Your task to perform on an android device: Open Google Chrome and click the shortcut for Amazon.com Image 0: 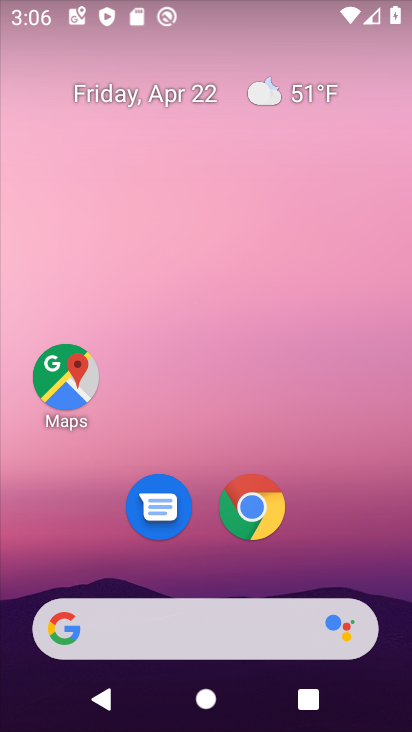
Step 0: click (246, 509)
Your task to perform on an android device: Open Google Chrome and click the shortcut for Amazon.com Image 1: 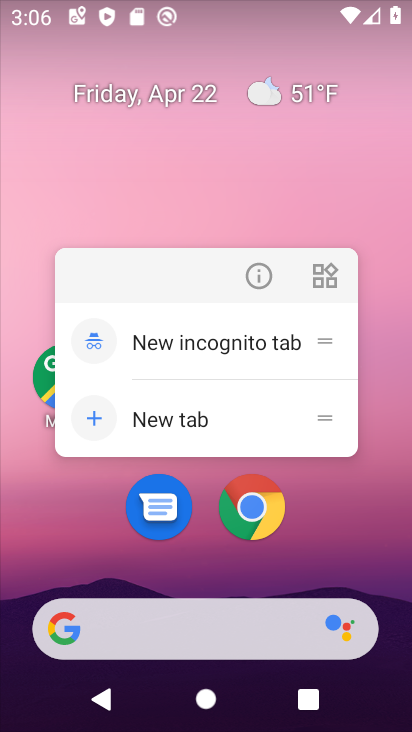
Step 1: click (258, 519)
Your task to perform on an android device: Open Google Chrome and click the shortcut for Amazon.com Image 2: 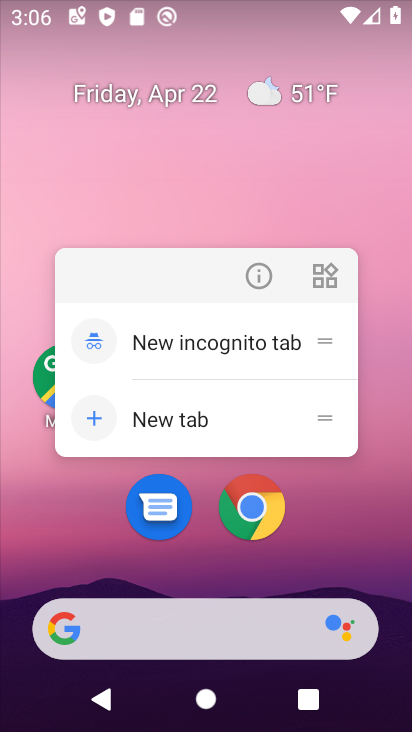
Step 2: click (260, 508)
Your task to perform on an android device: Open Google Chrome and click the shortcut for Amazon.com Image 3: 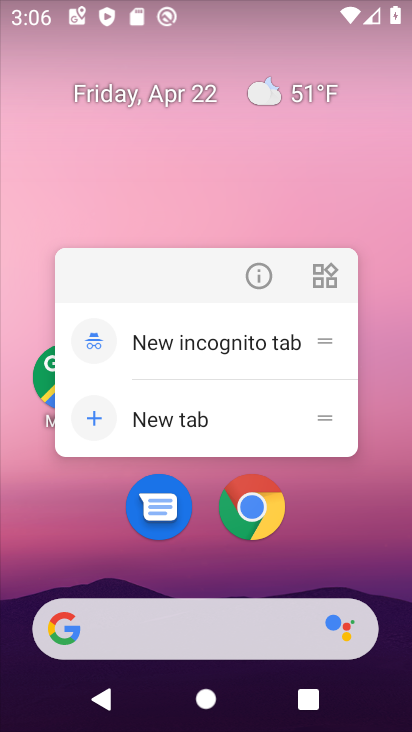
Step 3: click (252, 502)
Your task to perform on an android device: Open Google Chrome and click the shortcut for Amazon.com Image 4: 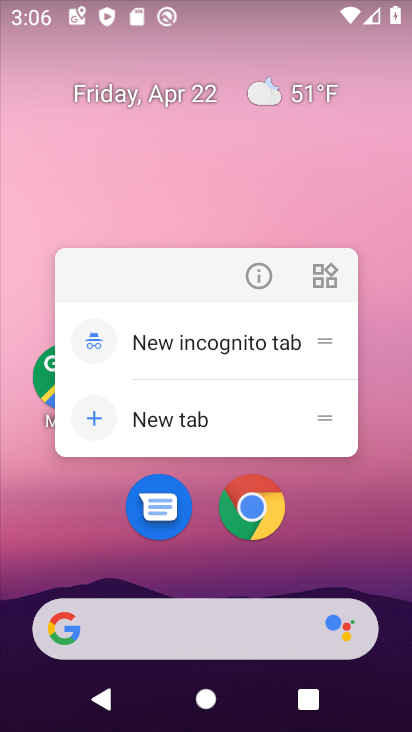
Step 4: click (263, 500)
Your task to perform on an android device: Open Google Chrome and click the shortcut for Amazon.com Image 5: 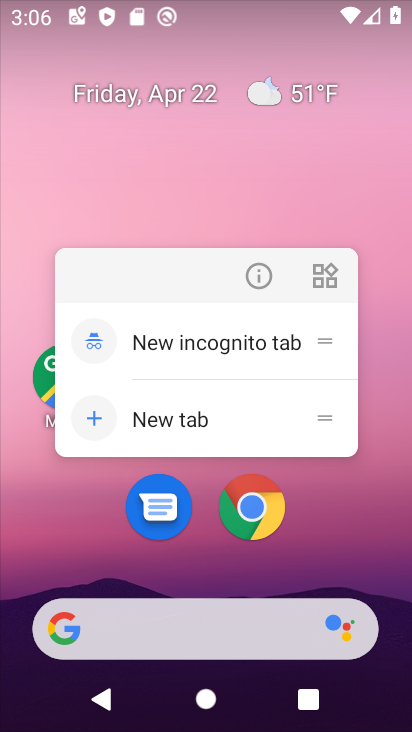
Step 5: click (255, 504)
Your task to perform on an android device: Open Google Chrome and click the shortcut for Amazon.com Image 6: 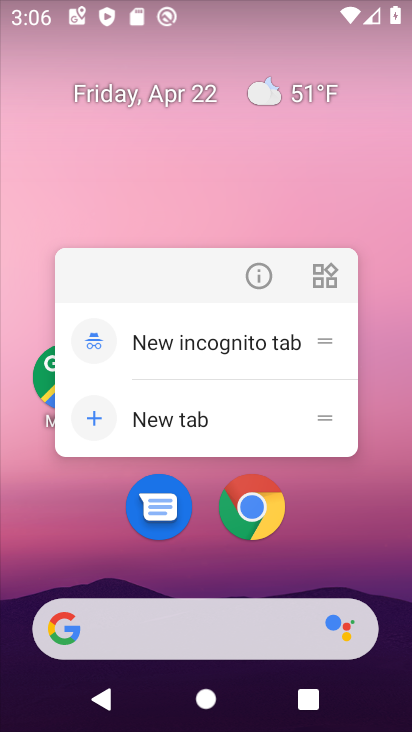
Step 6: click (253, 501)
Your task to perform on an android device: Open Google Chrome and click the shortcut for Amazon.com Image 7: 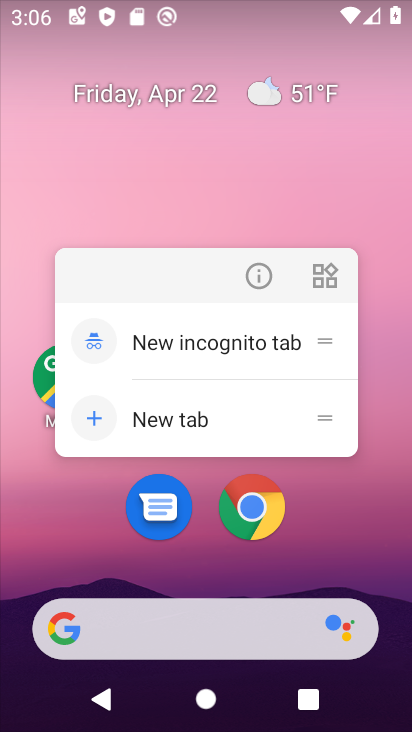
Step 7: click (256, 506)
Your task to perform on an android device: Open Google Chrome and click the shortcut for Amazon.com Image 8: 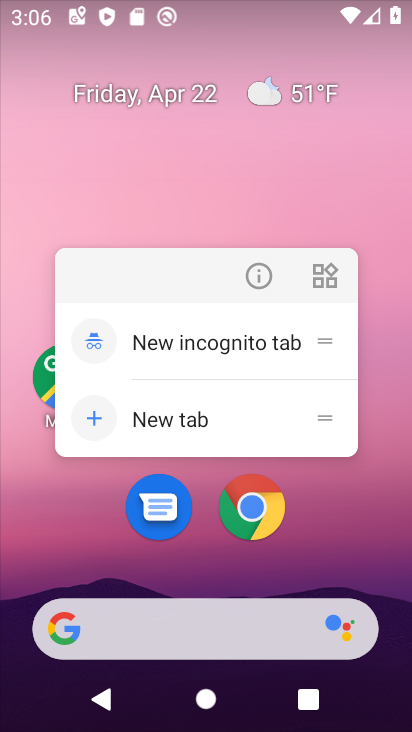
Step 8: click (255, 511)
Your task to perform on an android device: Open Google Chrome and click the shortcut for Amazon.com Image 9: 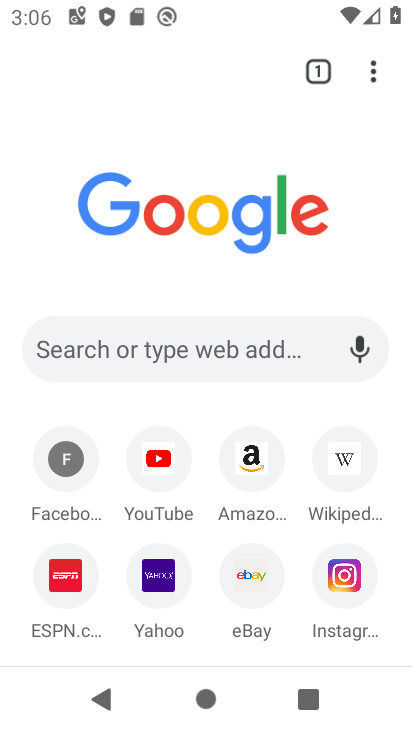
Step 9: click (245, 465)
Your task to perform on an android device: Open Google Chrome and click the shortcut for Amazon.com Image 10: 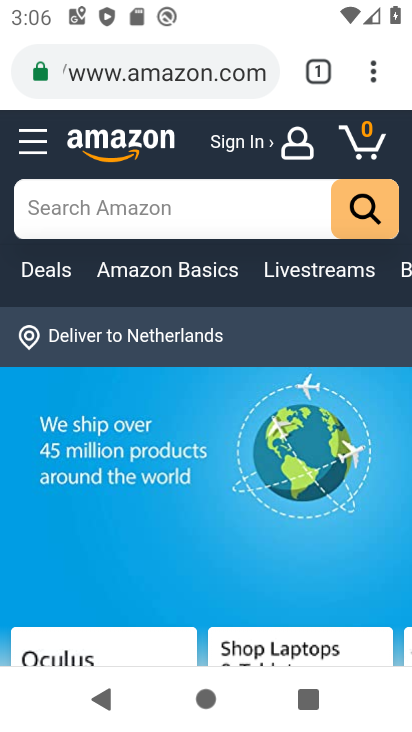
Step 10: task complete